Your task to perform on an android device: change notifications settings Image 0: 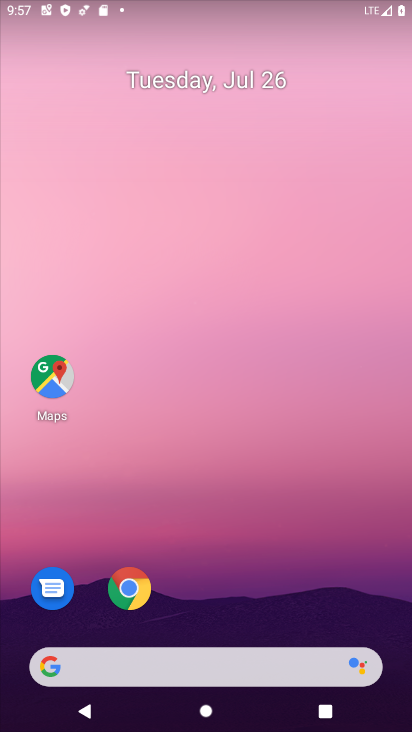
Step 0: drag from (178, 658) to (295, 34)
Your task to perform on an android device: change notifications settings Image 1: 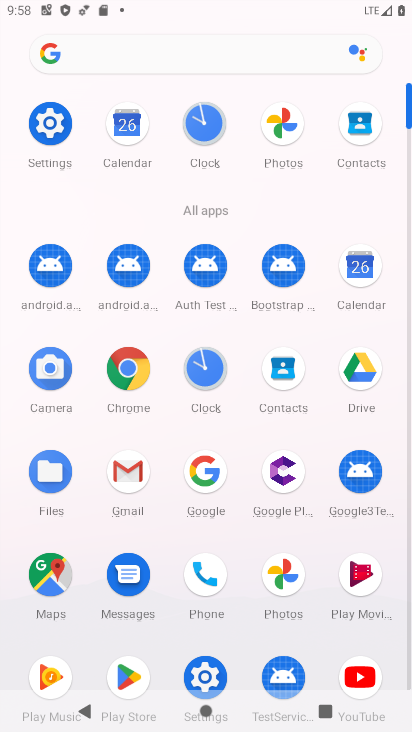
Step 1: click (50, 122)
Your task to perform on an android device: change notifications settings Image 2: 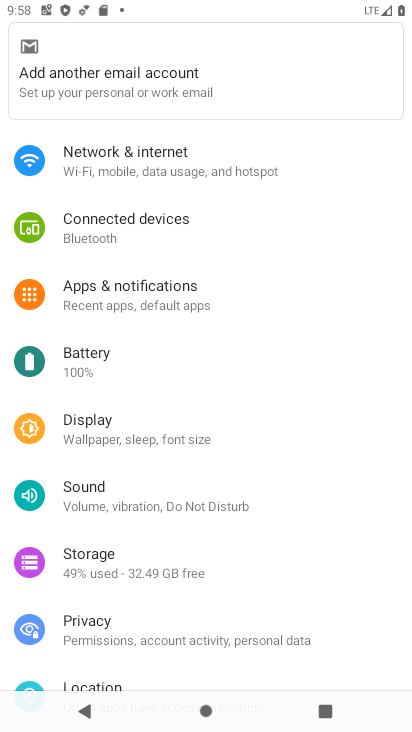
Step 2: click (114, 298)
Your task to perform on an android device: change notifications settings Image 3: 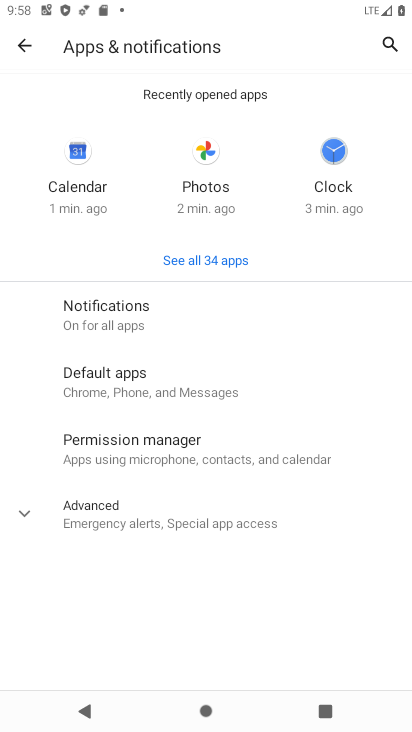
Step 3: click (114, 318)
Your task to perform on an android device: change notifications settings Image 4: 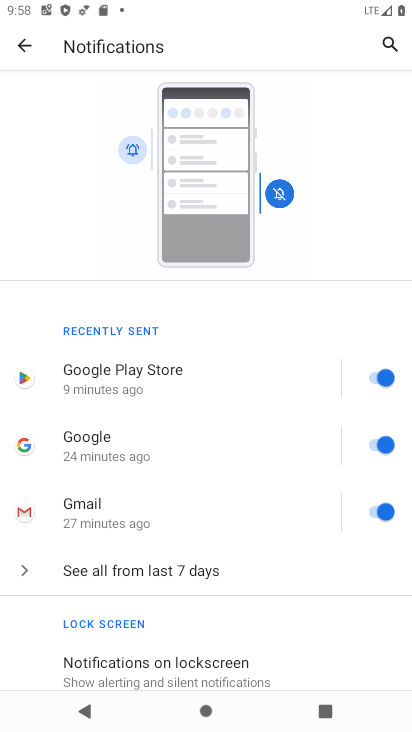
Step 4: drag from (141, 497) to (133, 352)
Your task to perform on an android device: change notifications settings Image 5: 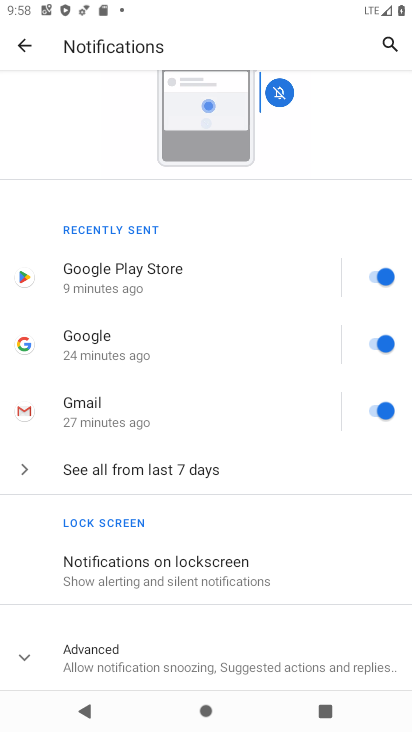
Step 5: click (142, 663)
Your task to perform on an android device: change notifications settings Image 6: 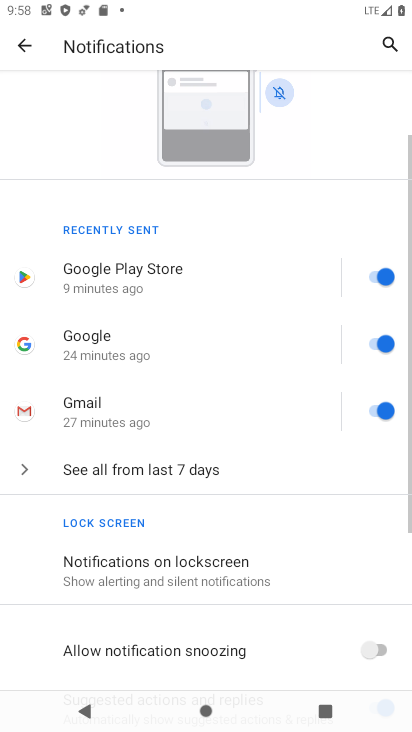
Step 6: drag from (177, 620) to (256, 421)
Your task to perform on an android device: change notifications settings Image 7: 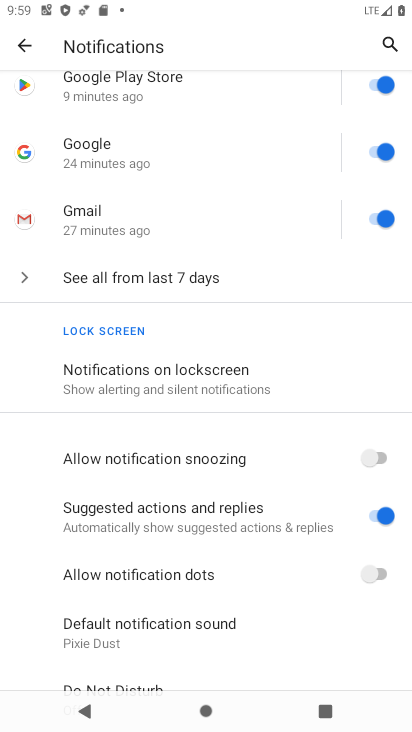
Step 7: click (368, 572)
Your task to perform on an android device: change notifications settings Image 8: 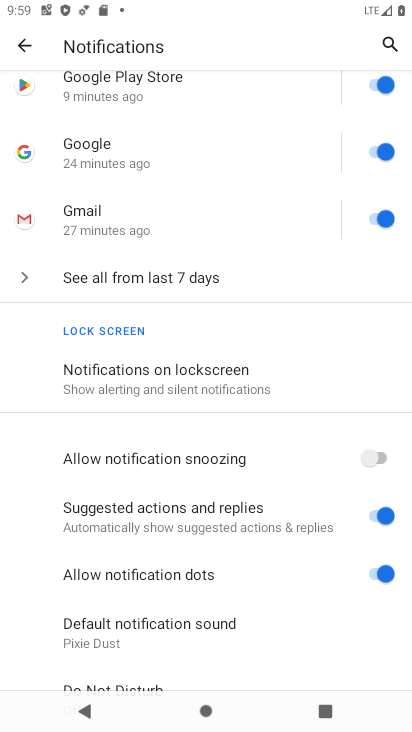
Step 8: task complete